Your task to perform on an android device: Open Chrome and go to the settings page Image 0: 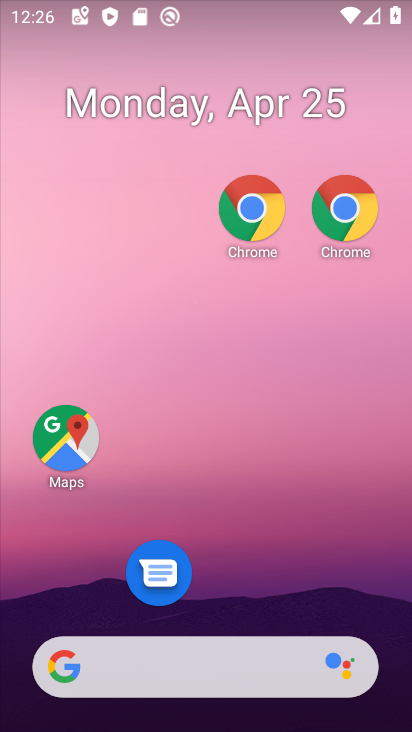
Step 0: drag from (234, 701) to (212, 143)
Your task to perform on an android device: Open Chrome and go to the settings page Image 1: 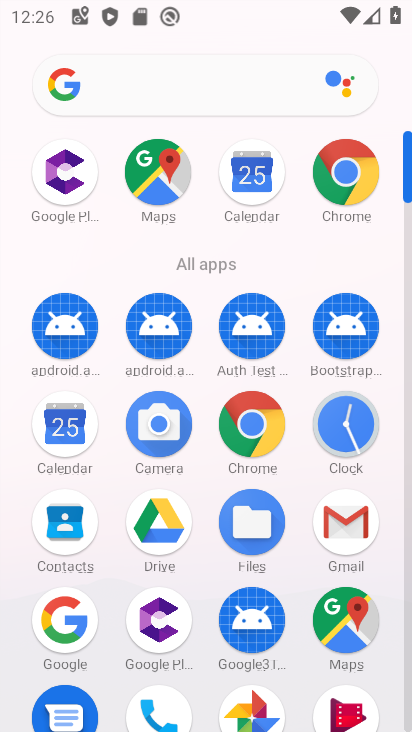
Step 1: click (341, 168)
Your task to perform on an android device: Open Chrome and go to the settings page Image 2: 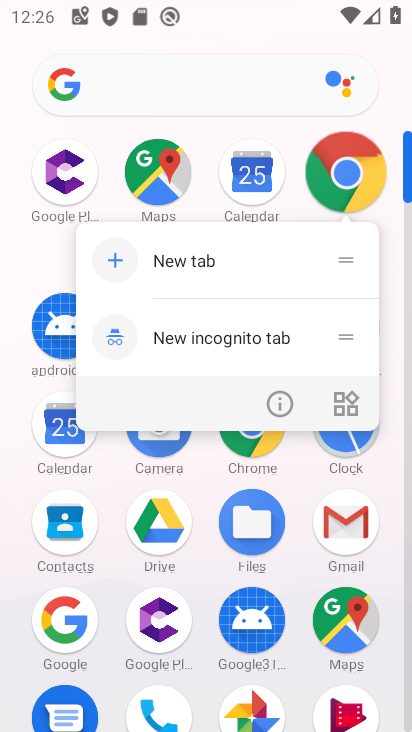
Step 2: click (341, 170)
Your task to perform on an android device: Open Chrome and go to the settings page Image 3: 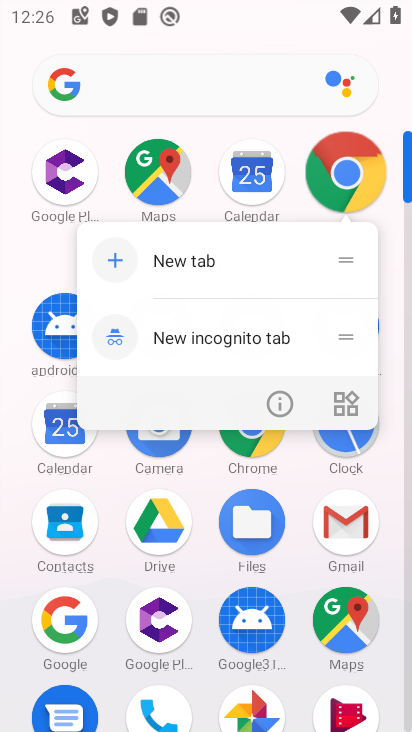
Step 3: click (341, 172)
Your task to perform on an android device: Open Chrome and go to the settings page Image 4: 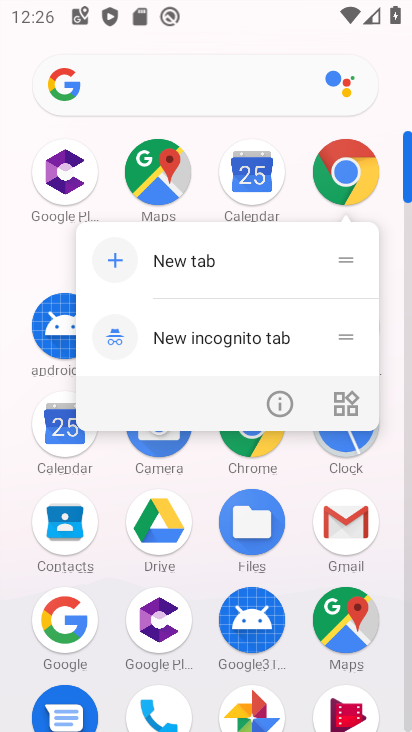
Step 4: click (341, 175)
Your task to perform on an android device: Open Chrome and go to the settings page Image 5: 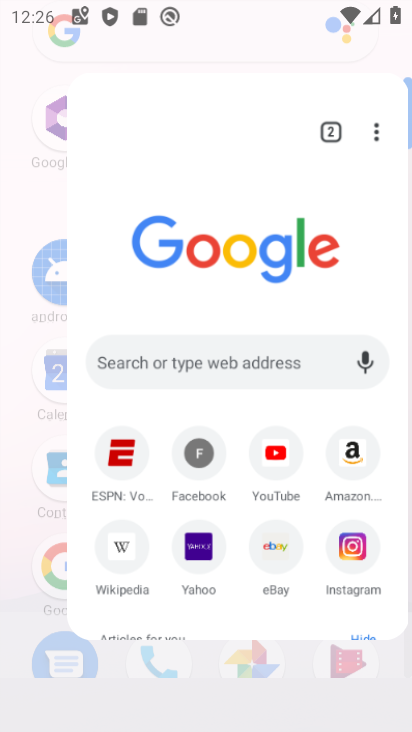
Step 5: click (341, 181)
Your task to perform on an android device: Open Chrome and go to the settings page Image 6: 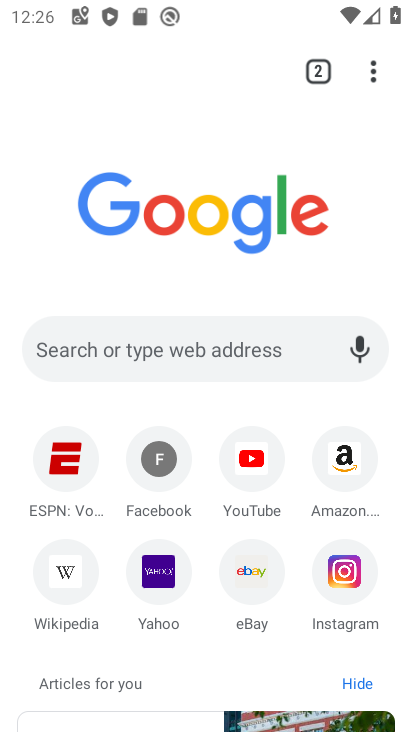
Step 6: click (369, 74)
Your task to perform on an android device: Open Chrome and go to the settings page Image 7: 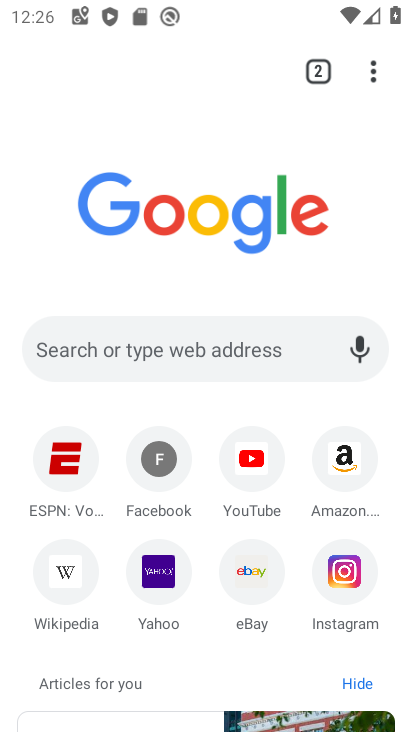
Step 7: drag from (370, 67) to (106, 621)
Your task to perform on an android device: Open Chrome and go to the settings page Image 8: 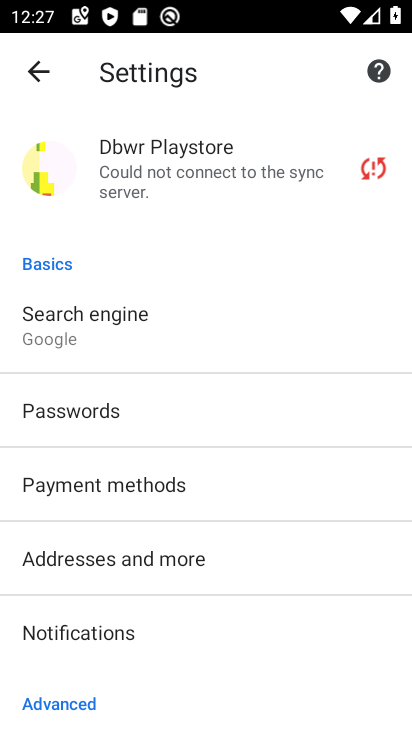
Step 8: drag from (102, 526) to (150, 132)
Your task to perform on an android device: Open Chrome and go to the settings page Image 9: 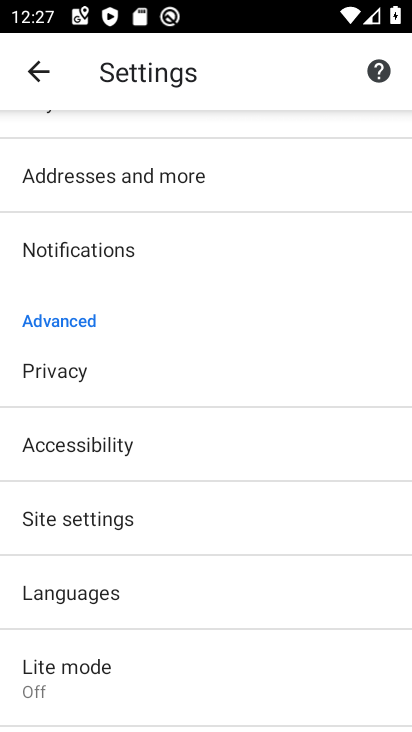
Step 9: click (73, 508)
Your task to perform on an android device: Open Chrome and go to the settings page Image 10: 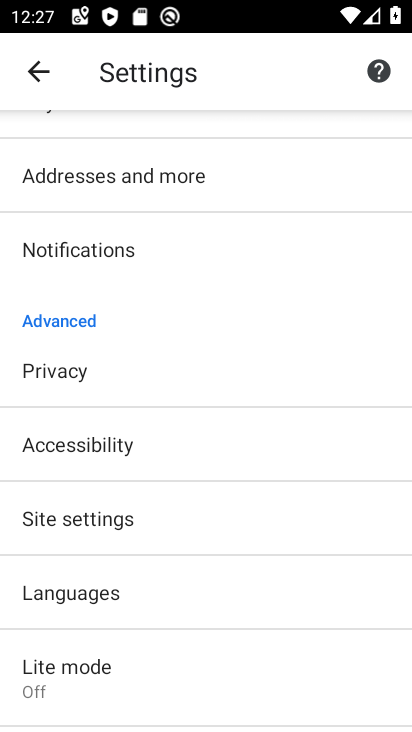
Step 10: click (64, 524)
Your task to perform on an android device: Open Chrome and go to the settings page Image 11: 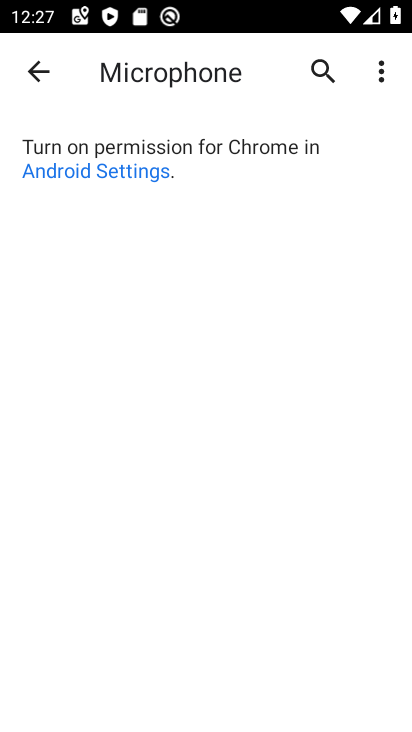
Step 11: click (77, 521)
Your task to perform on an android device: Open Chrome and go to the settings page Image 12: 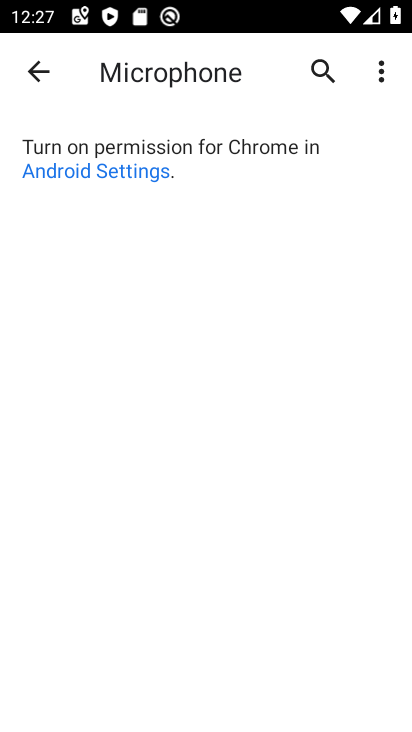
Step 12: click (41, 69)
Your task to perform on an android device: Open Chrome and go to the settings page Image 13: 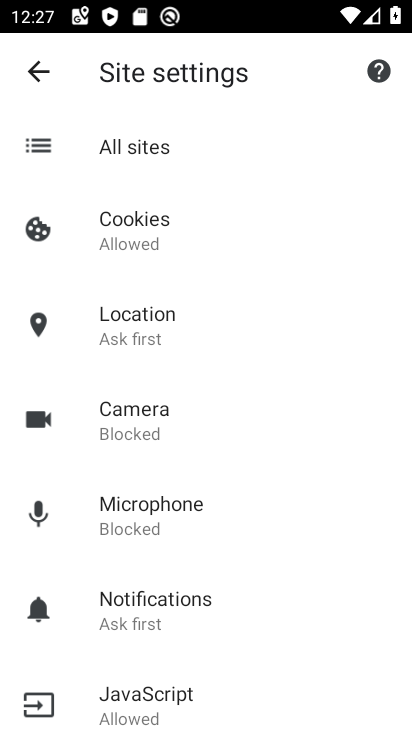
Step 13: task complete